Your task to perform on an android device: When is my next meeting? Image 0: 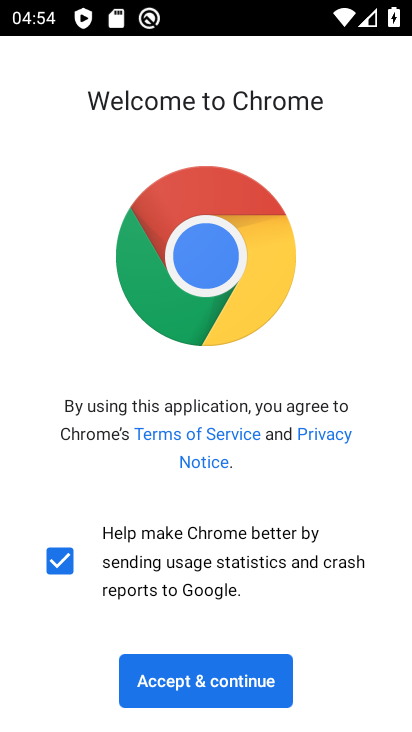
Step 0: press back button
Your task to perform on an android device: When is my next meeting? Image 1: 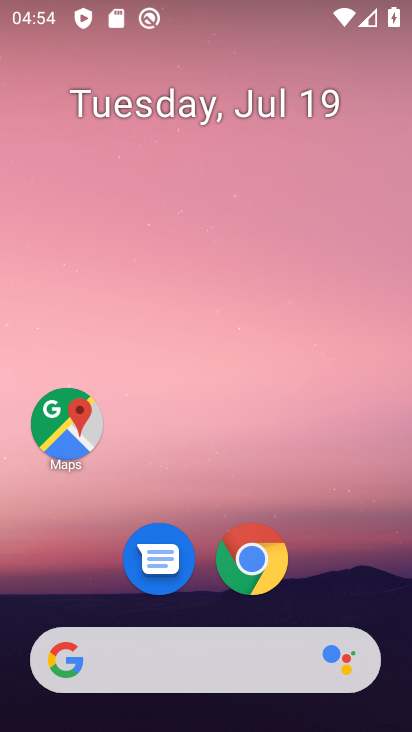
Step 1: click (139, 678)
Your task to perform on an android device: When is my next meeting? Image 2: 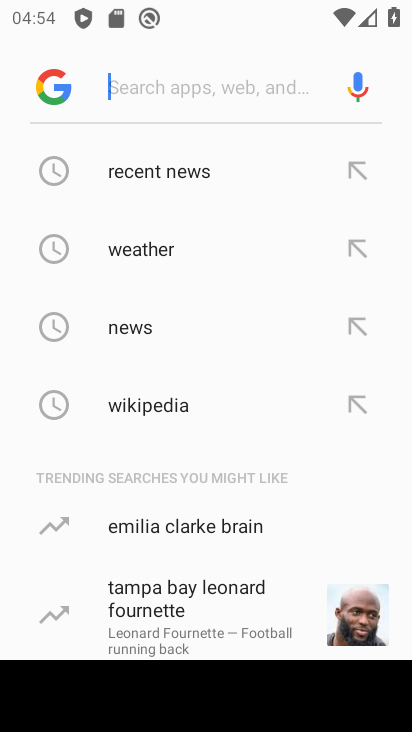
Step 2: press back button
Your task to perform on an android device: When is my next meeting? Image 3: 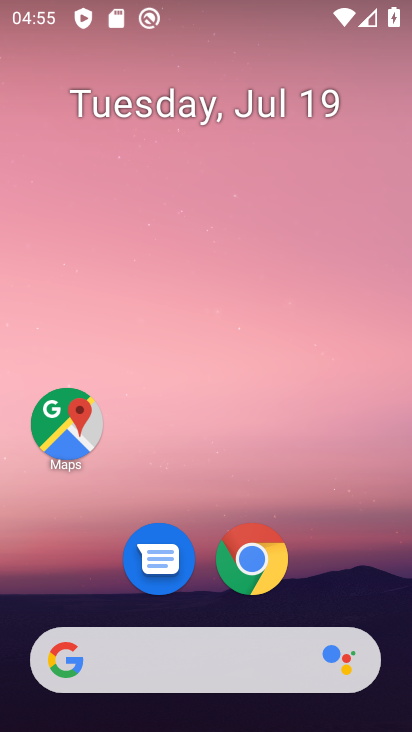
Step 3: click (205, 649)
Your task to perform on an android device: When is my next meeting? Image 4: 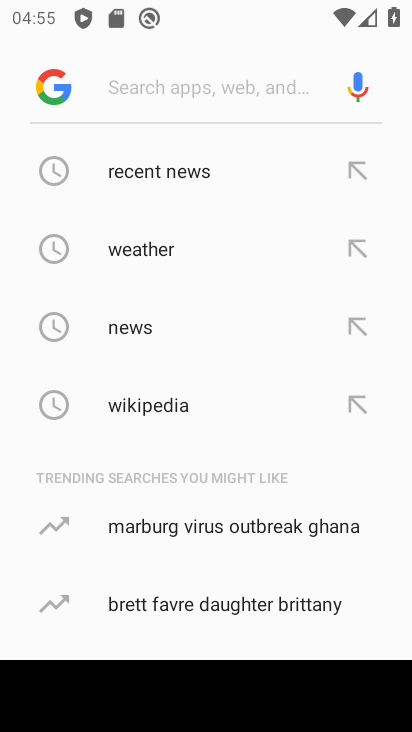
Step 4: press back button
Your task to perform on an android device: When is my next meeting? Image 5: 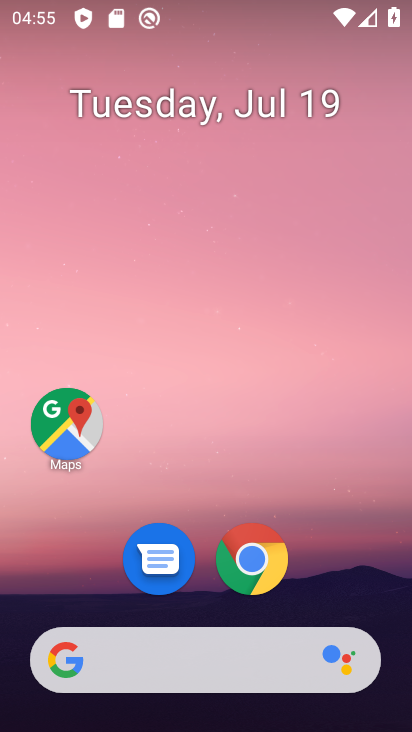
Step 5: drag from (227, 474) to (226, 7)
Your task to perform on an android device: When is my next meeting? Image 6: 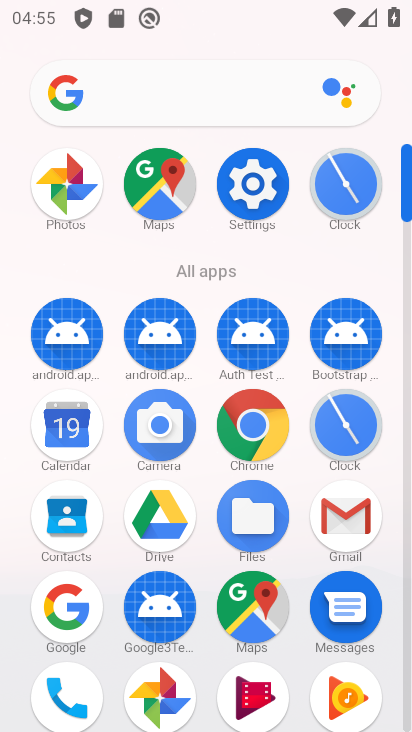
Step 6: click (79, 420)
Your task to perform on an android device: When is my next meeting? Image 7: 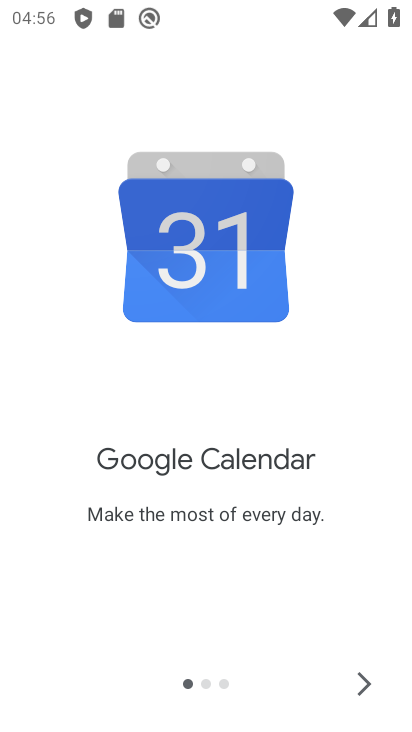
Step 7: click (345, 667)
Your task to perform on an android device: When is my next meeting? Image 8: 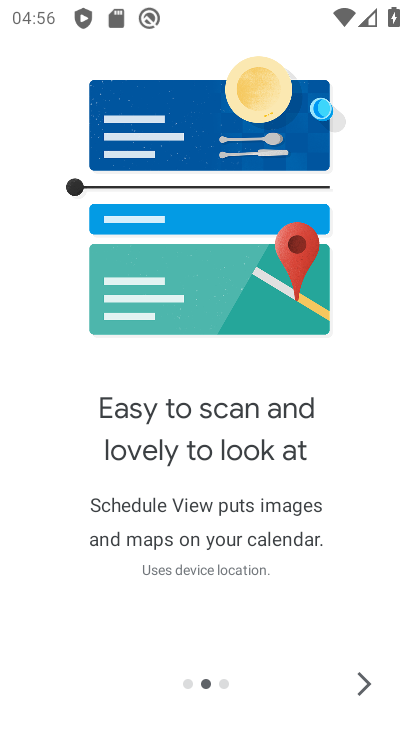
Step 8: click (371, 666)
Your task to perform on an android device: When is my next meeting? Image 9: 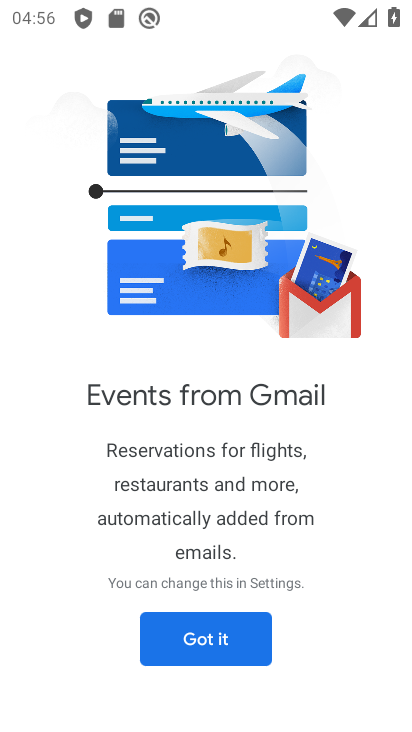
Step 9: click (222, 633)
Your task to perform on an android device: When is my next meeting? Image 10: 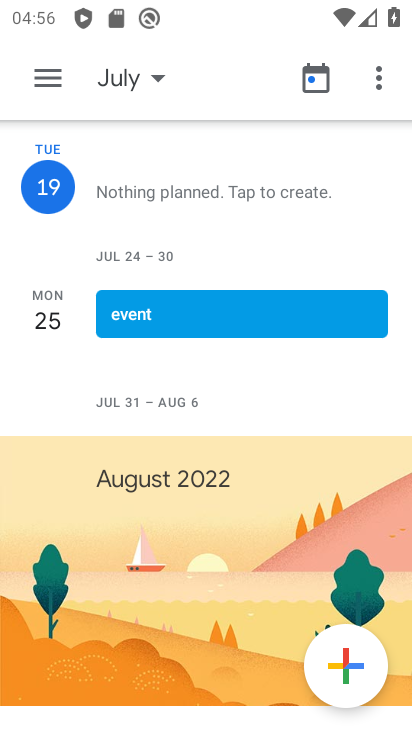
Step 10: task complete